Your task to perform on an android device: Open Google Chrome and click the shortcut for Amazon.com Image 0: 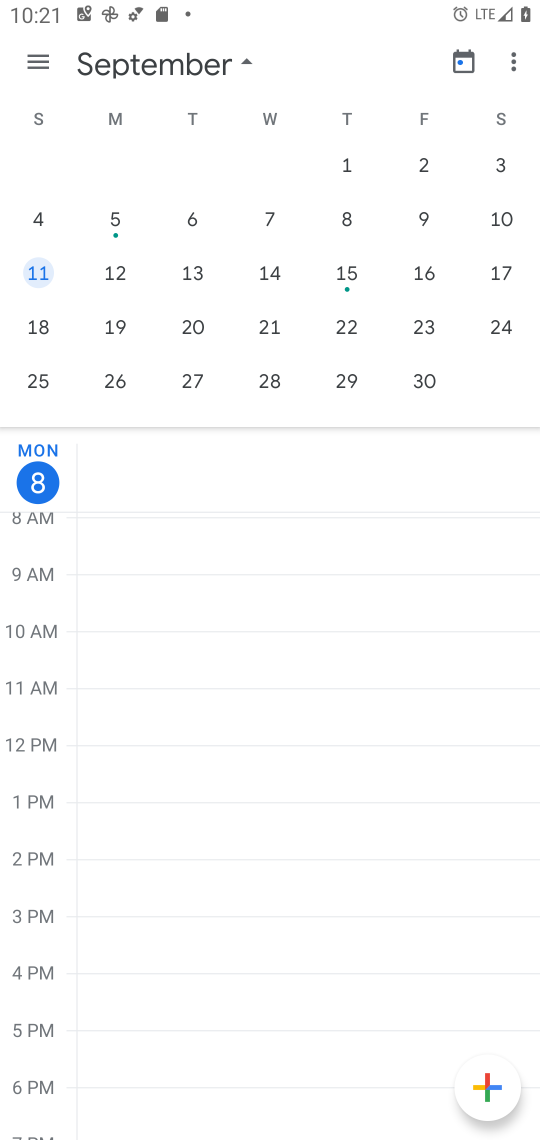
Step 0: press home button
Your task to perform on an android device: Open Google Chrome and click the shortcut for Amazon.com Image 1: 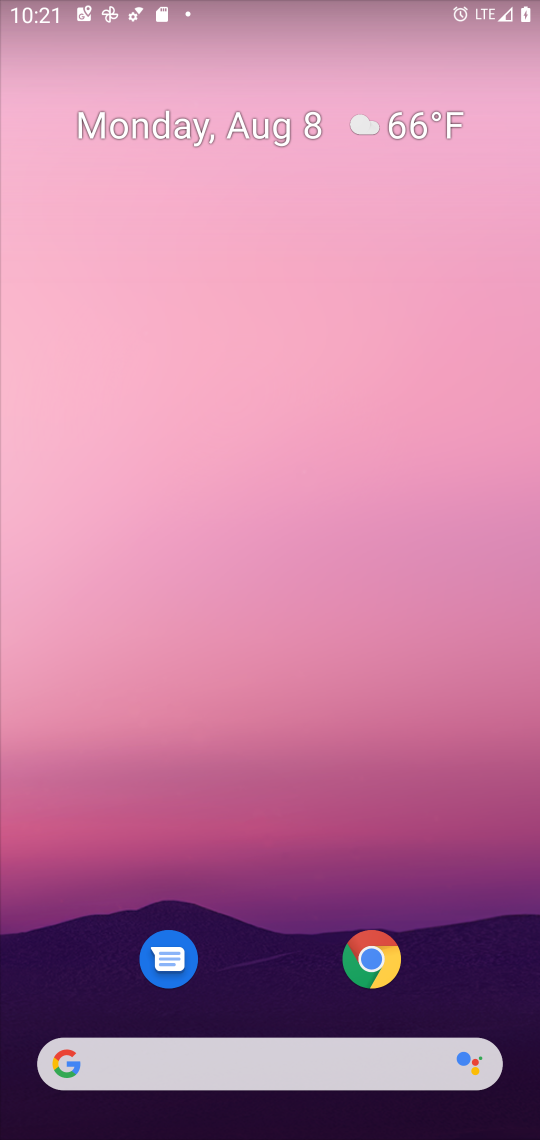
Step 1: drag from (508, 950) to (275, 50)
Your task to perform on an android device: Open Google Chrome and click the shortcut for Amazon.com Image 2: 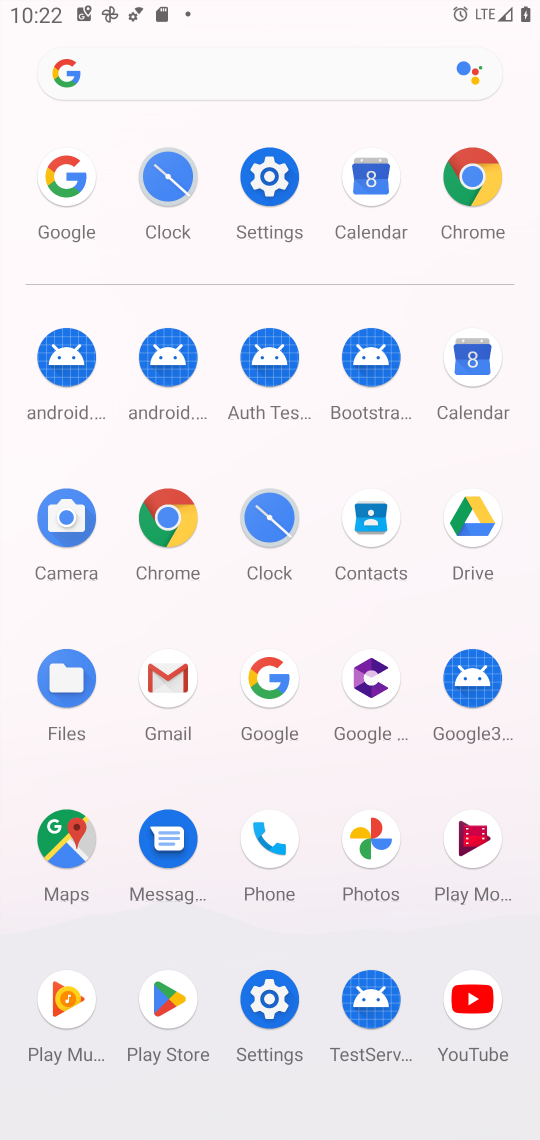
Step 2: click (475, 185)
Your task to perform on an android device: Open Google Chrome and click the shortcut for Amazon.com Image 3: 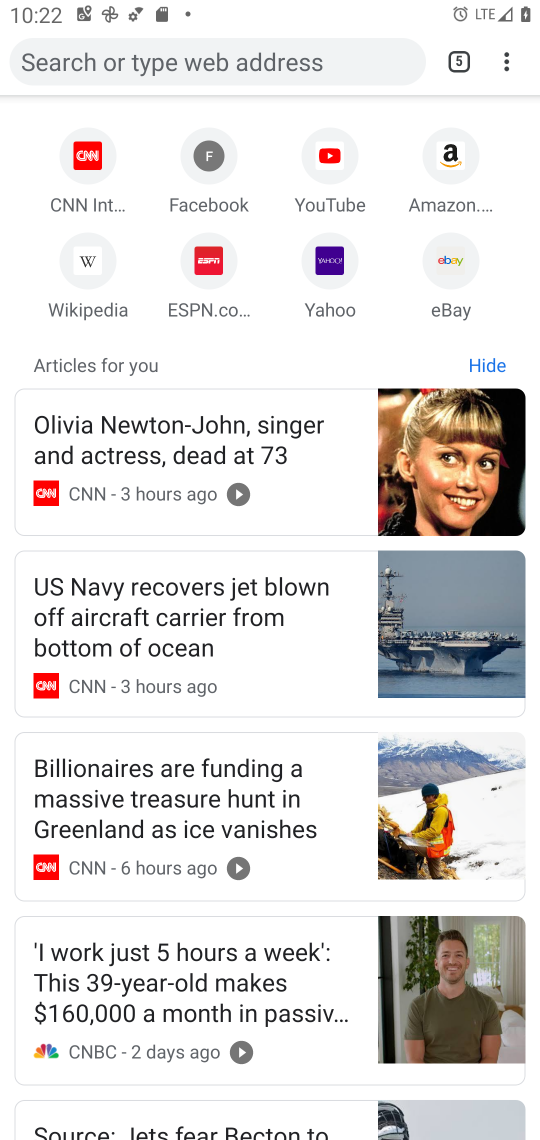
Step 3: click (447, 154)
Your task to perform on an android device: Open Google Chrome and click the shortcut for Amazon.com Image 4: 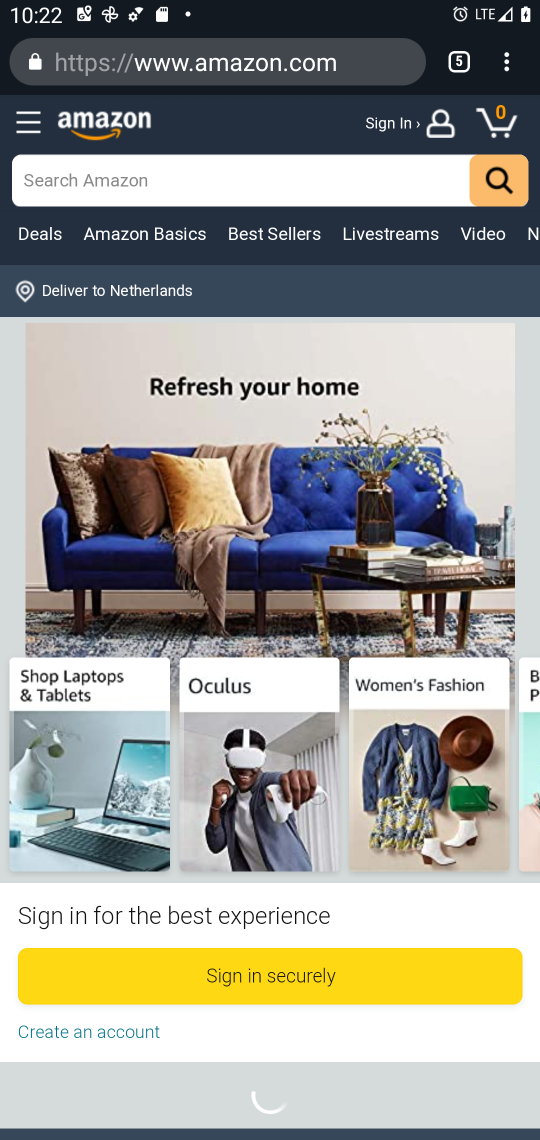
Step 4: task complete